Your task to perform on an android device: Open Wikipedia Image 0: 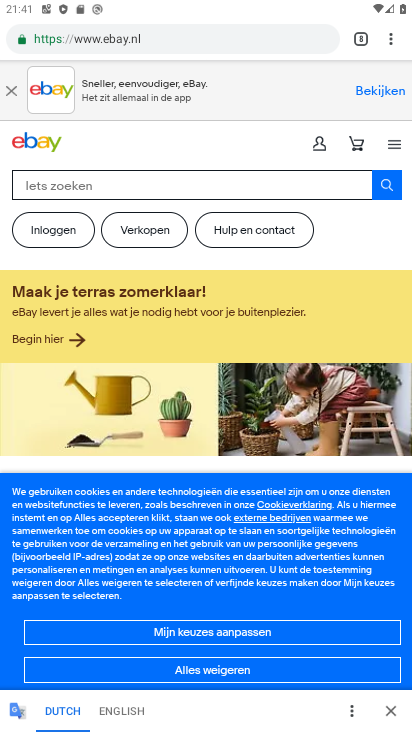
Step 0: click (386, 42)
Your task to perform on an android device: Open Wikipedia Image 1: 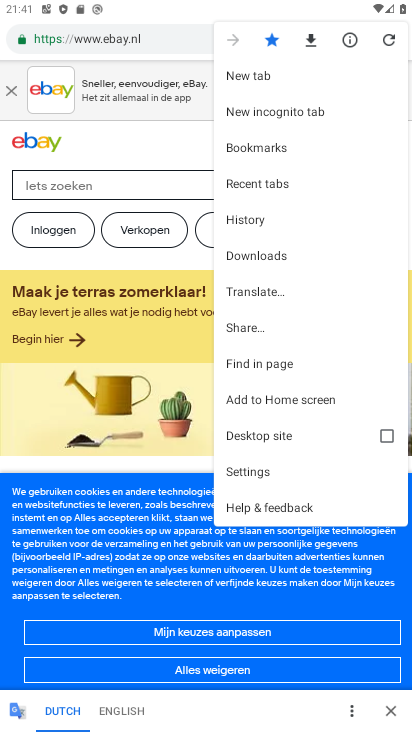
Step 1: click (250, 70)
Your task to perform on an android device: Open Wikipedia Image 2: 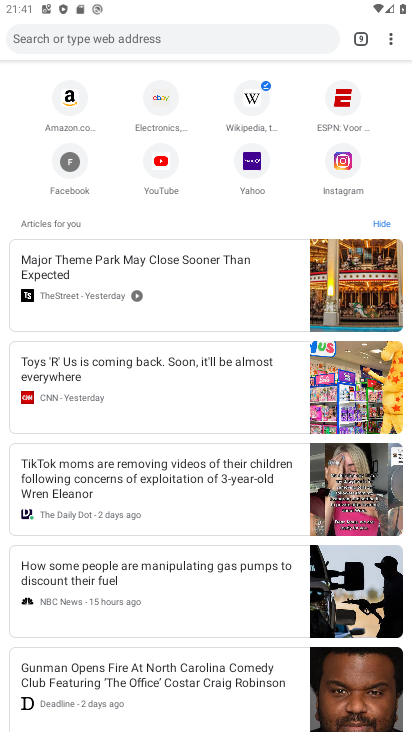
Step 2: click (252, 98)
Your task to perform on an android device: Open Wikipedia Image 3: 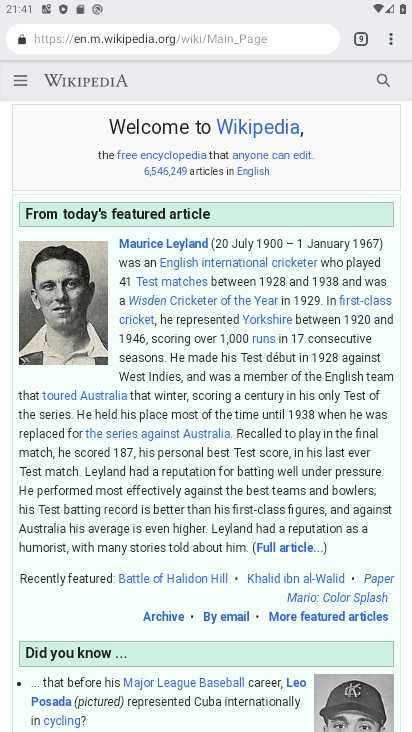
Step 3: task complete